Your task to perform on an android device: Open wifi settings Image 0: 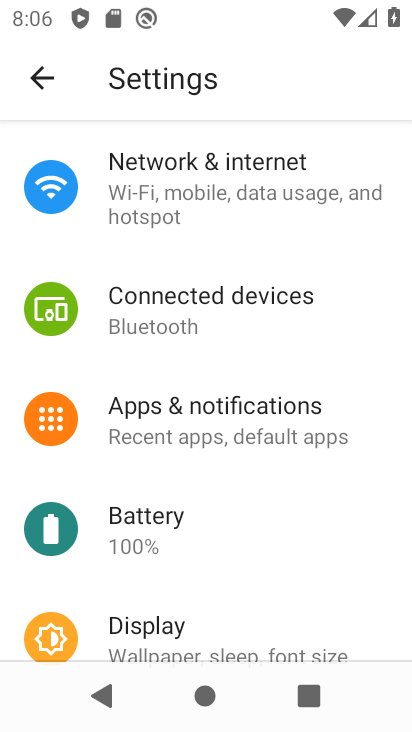
Step 0: press back button
Your task to perform on an android device: Open wifi settings Image 1: 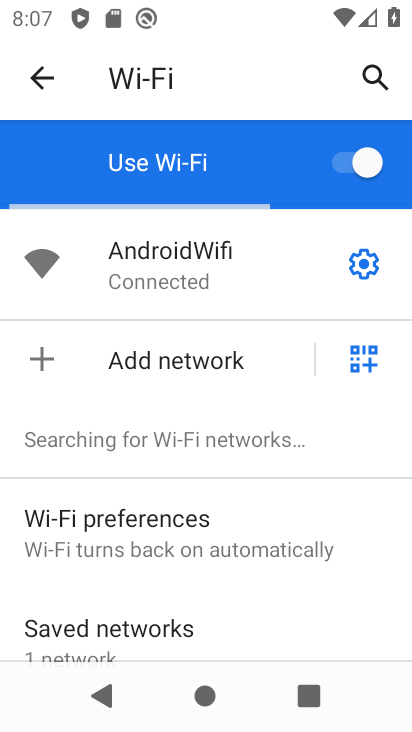
Step 1: task complete